Your task to perform on an android device: see creations saved in the google photos Image 0: 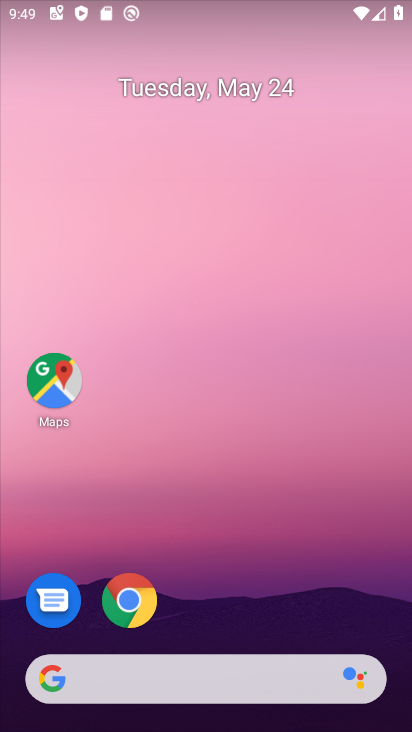
Step 0: drag from (178, 609) to (193, 31)
Your task to perform on an android device: see creations saved in the google photos Image 1: 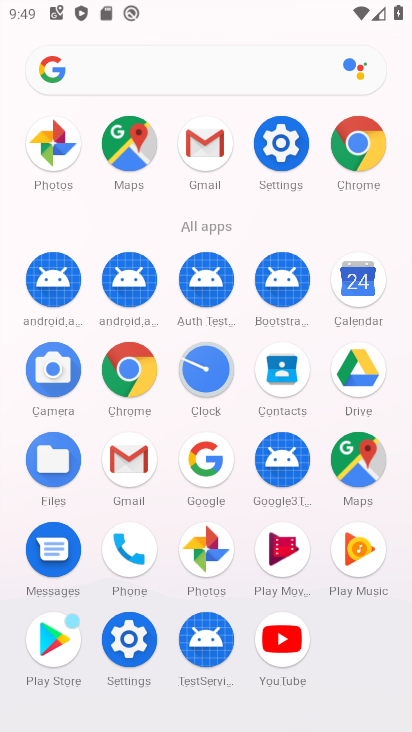
Step 1: click (213, 575)
Your task to perform on an android device: see creations saved in the google photos Image 2: 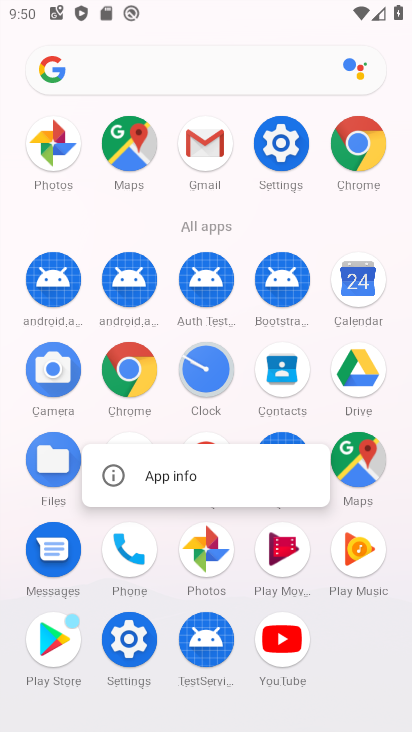
Step 2: click (211, 565)
Your task to perform on an android device: see creations saved in the google photos Image 3: 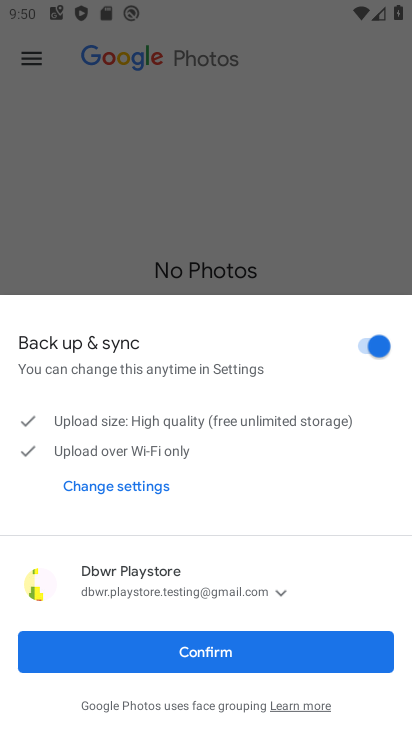
Step 3: click (214, 660)
Your task to perform on an android device: see creations saved in the google photos Image 4: 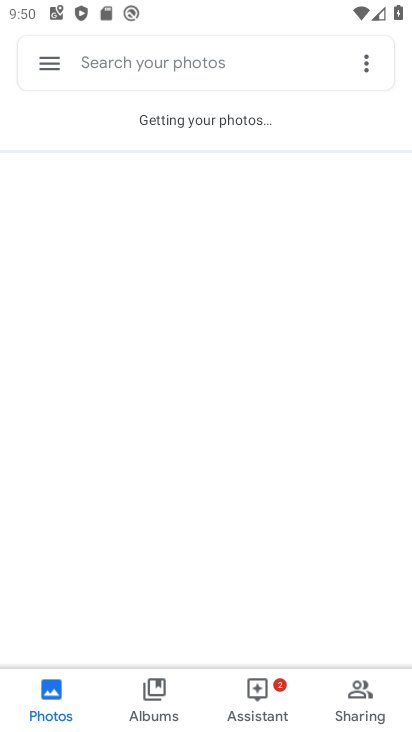
Step 4: click (147, 53)
Your task to perform on an android device: see creations saved in the google photos Image 5: 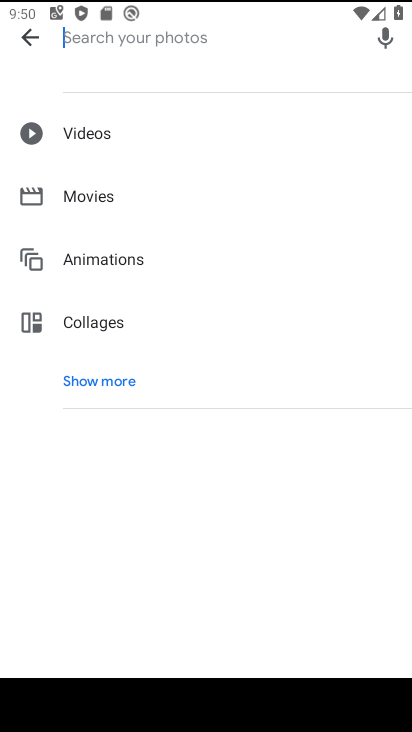
Step 5: click (96, 389)
Your task to perform on an android device: see creations saved in the google photos Image 6: 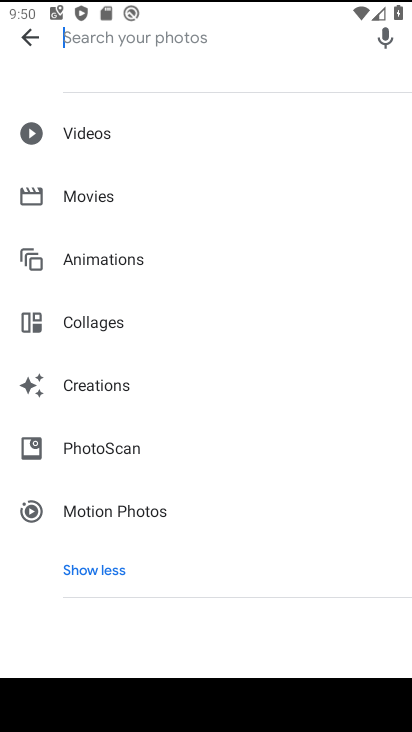
Step 6: click (96, 389)
Your task to perform on an android device: see creations saved in the google photos Image 7: 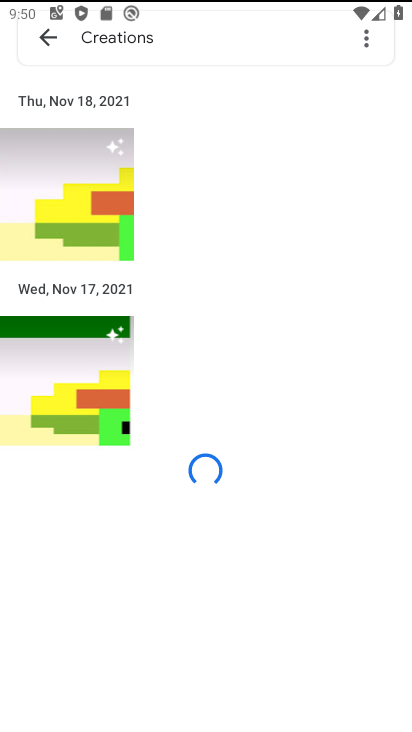
Step 7: task complete